Your task to perform on an android device: Open the map Image 0: 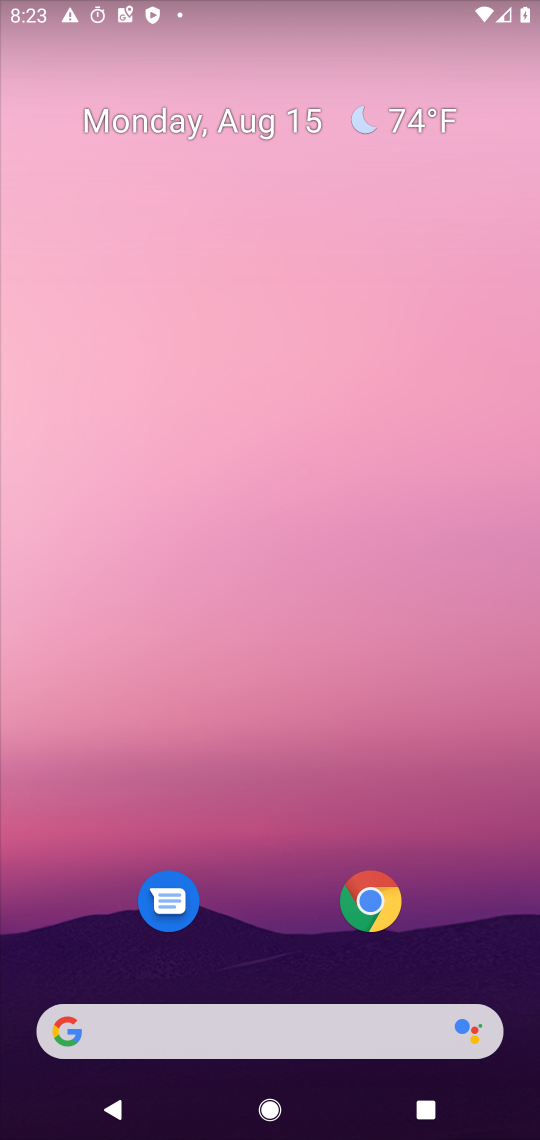
Step 0: drag from (263, 964) to (465, 24)
Your task to perform on an android device: Open the map Image 1: 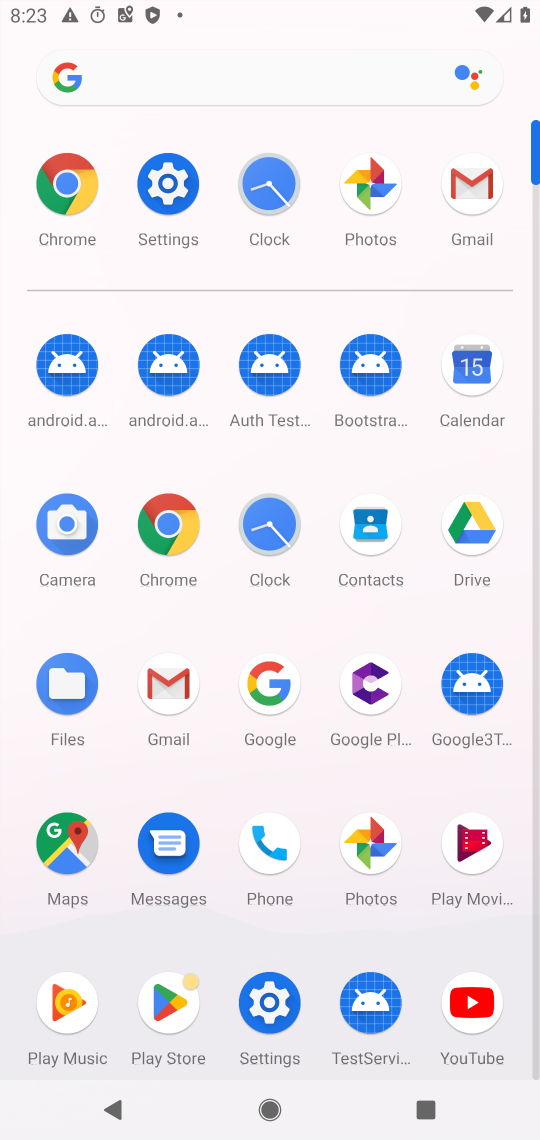
Step 1: click (81, 868)
Your task to perform on an android device: Open the map Image 2: 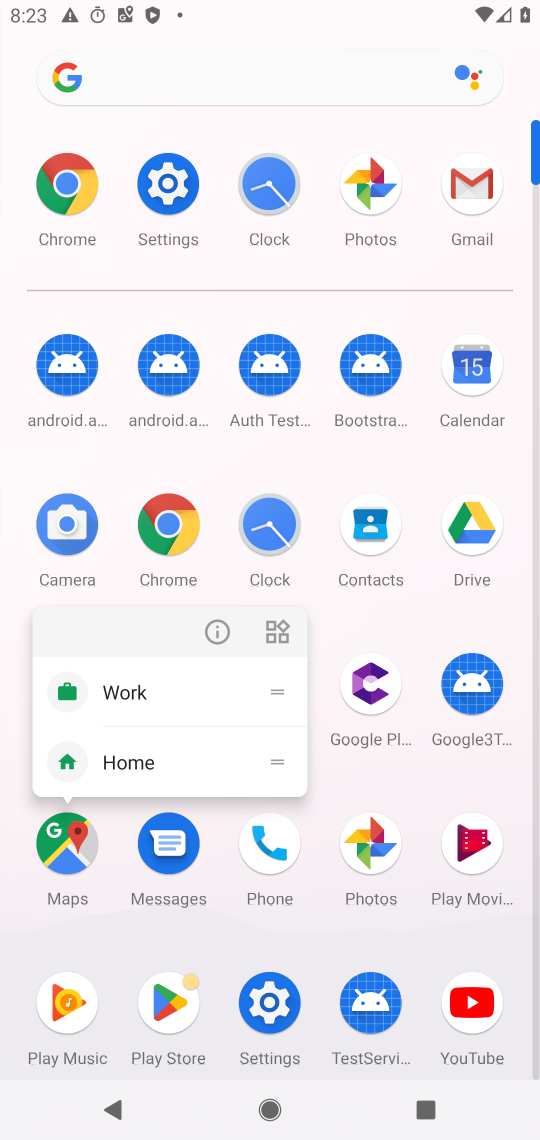
Step 2: click (81, 868)
Your task to perform on an android device: Open the map Image 3: 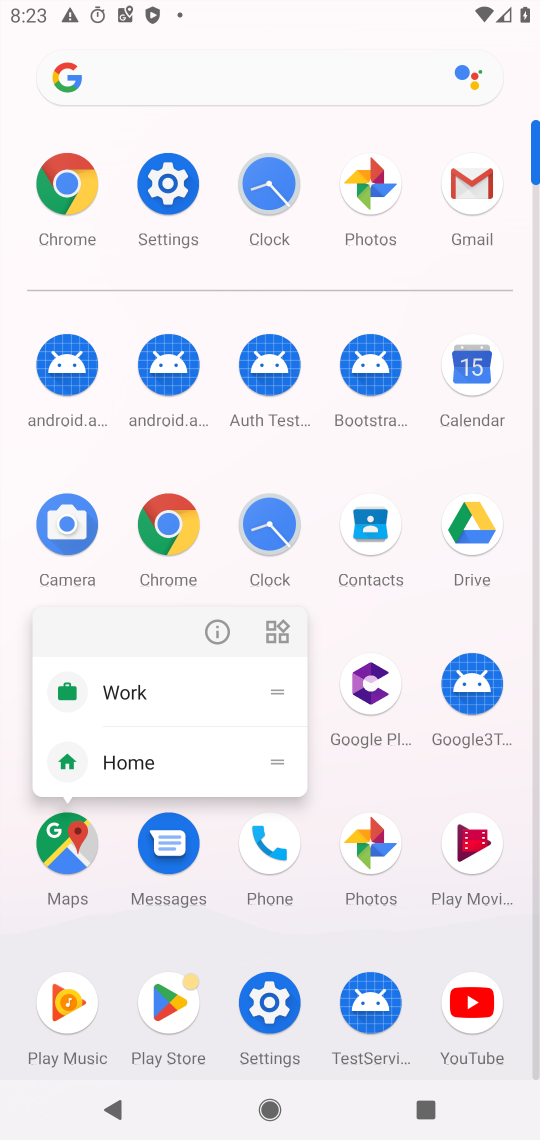
Step 3: click (81, 868)
Your task to perform on an android device: Open the map Image 4: 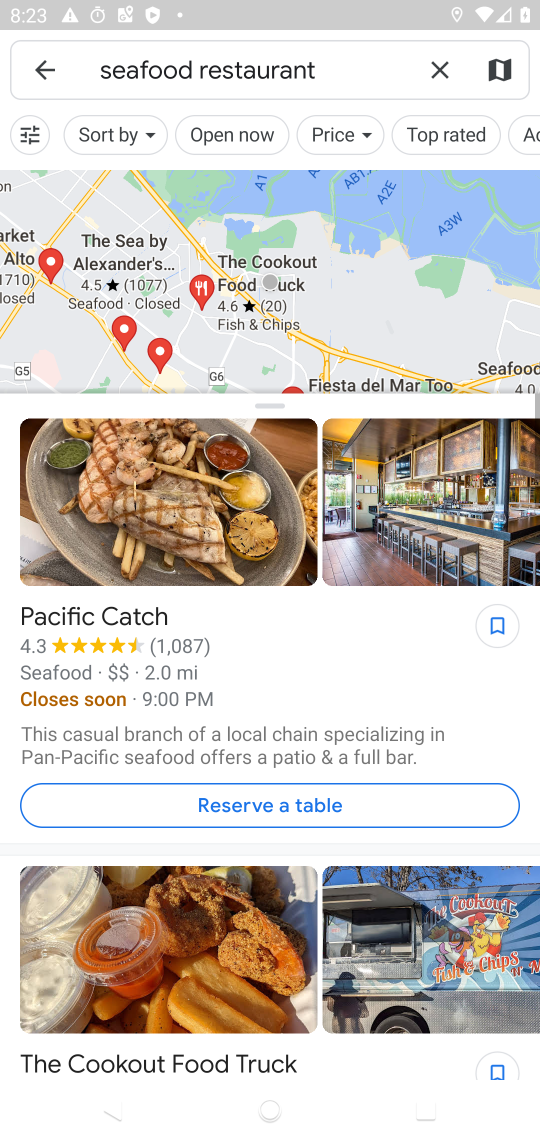
Step 4: click (42, 61)
Your task to perform on an android device: Open the map Image 5: 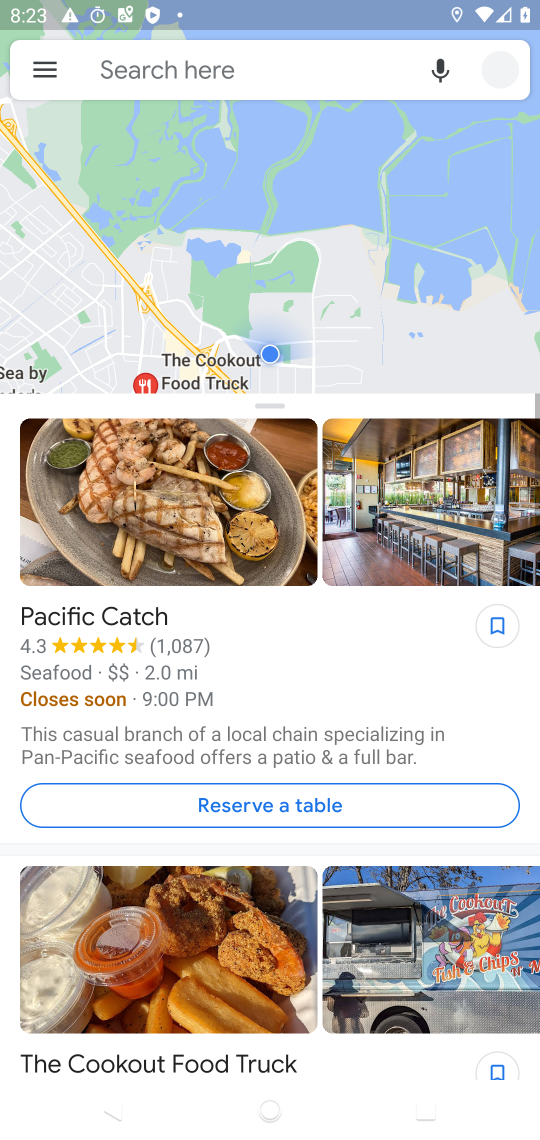
Step 5: task complete